Your task to perform on an android device: Find coffee shops on Maps Image 0: 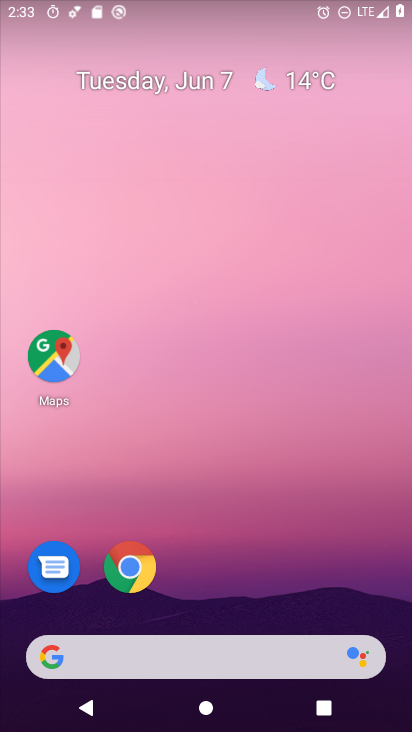
Step 0: drag from (316, 569) to (411, 48)
Your task to perform on an android device: Find coffee shops on Maps Image 1: 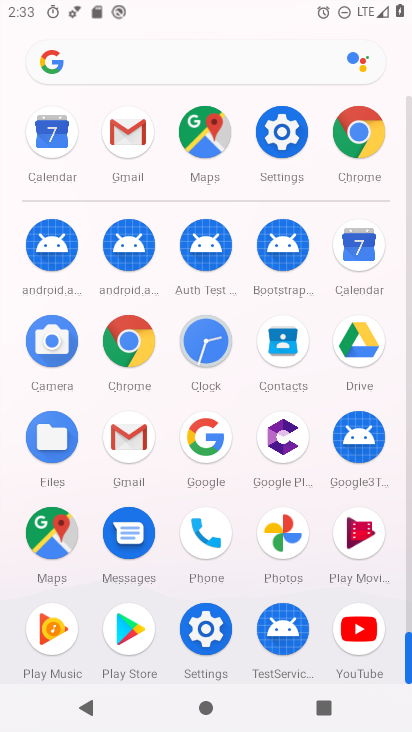
Step 1: click (55, 546)
Your task to perform on an android device: Find coffee shops on Maps Image 2: 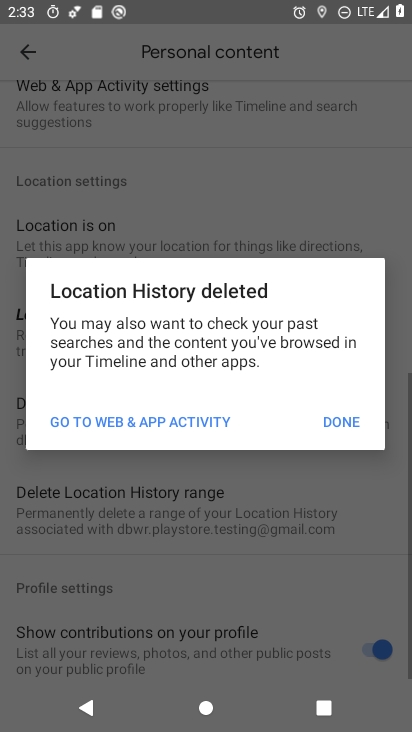
Step 2: click (344, 417)
Your task to perform on an android device: Find coffee shops on Maps Image 3: 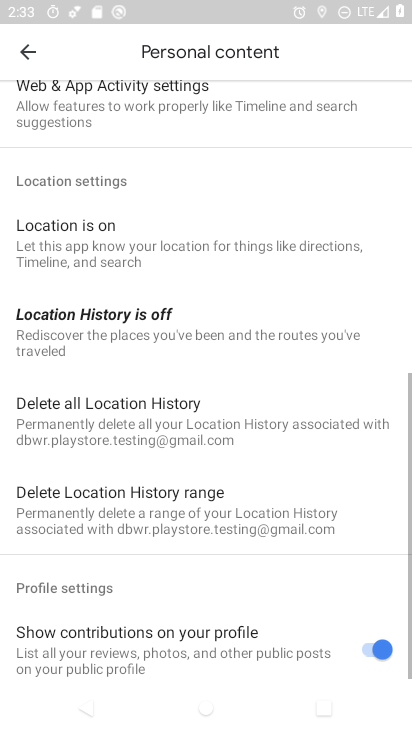
Step 3: click (34, 62)
Your task to perform on an android device: Find coffee shops on Maps Image 4: 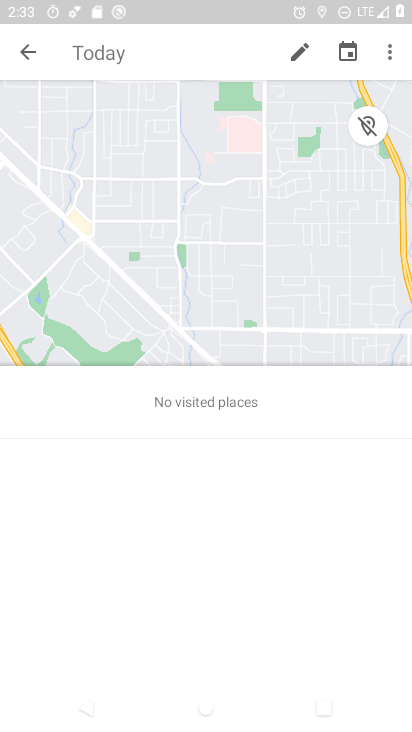
Step 4: click (56, 43)
Your task to perform on an android device: Find coffee shops on Maps Image 5: 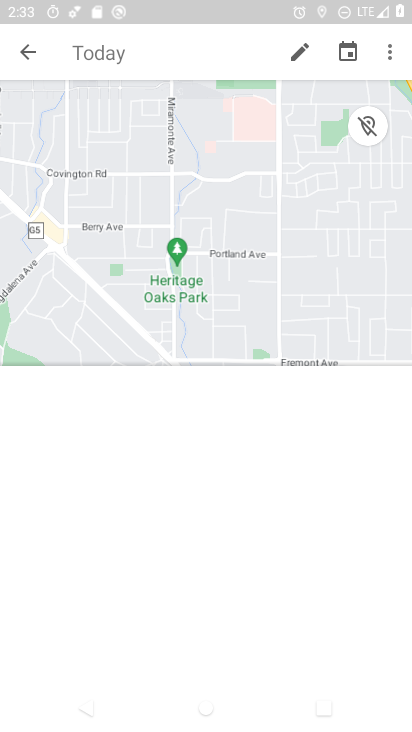
Step 5: click (46, 49)
Your task to perform on an android device: Find coffee shops on Maps Image 6: 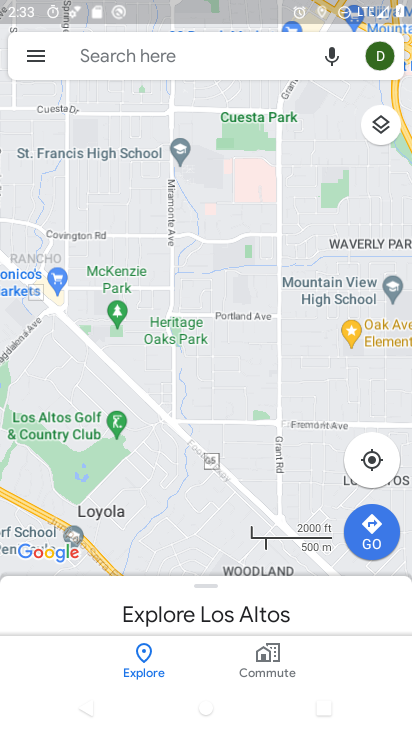
Step 6: click (164, 65)
Your task to perform on an android device: Find coffee shops on Maps Image 7: 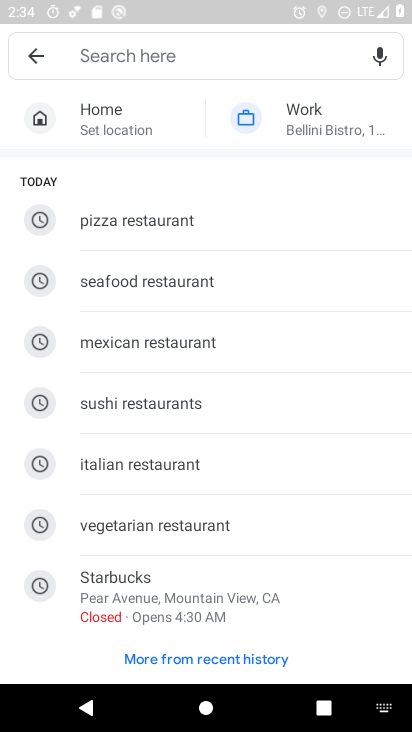
Step 7: type "coffee"
Your task to perform on an android device: Find coffee shops on Maps Image 8: 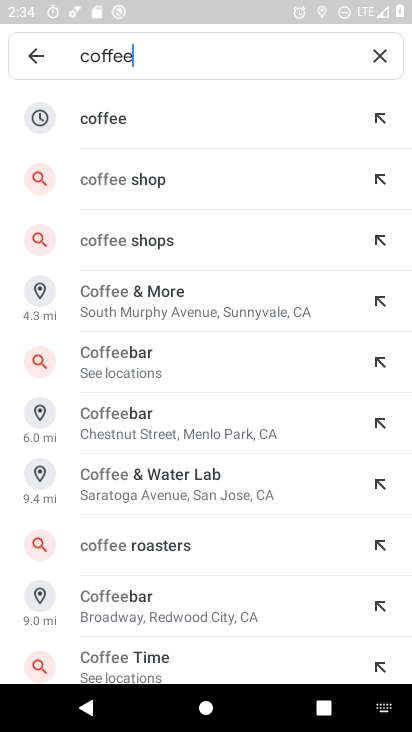
Step 8: click (188, 116)
Your task to perform on an android device: Find coffee shops on Maps Image 9: 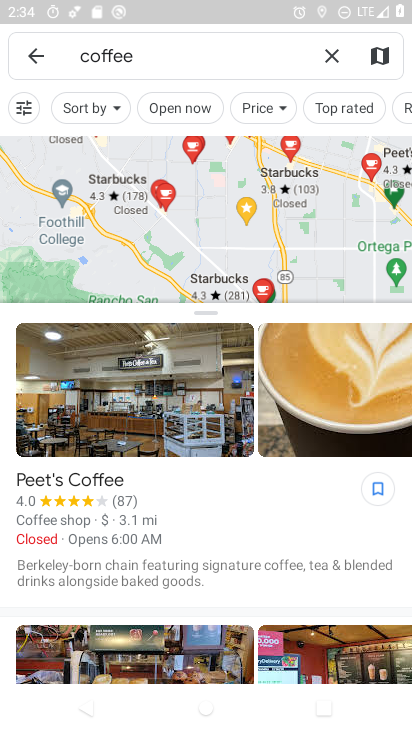
Step 9: task complete